Your task to perform on an android device: change timer sound Image 0: 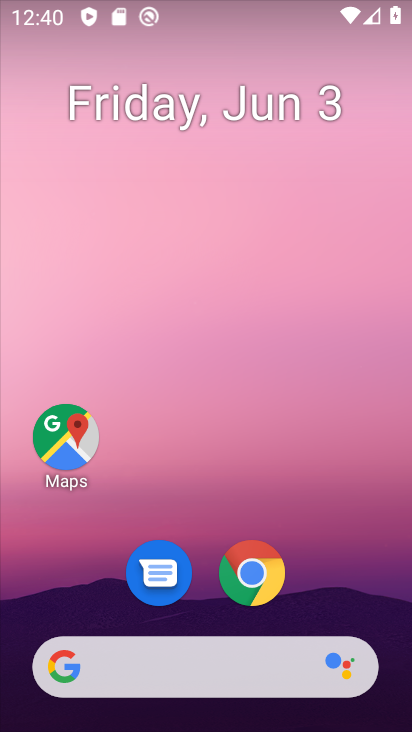
Step 0: task complete